Your task to perform on an android device: show emergency info Image 0: 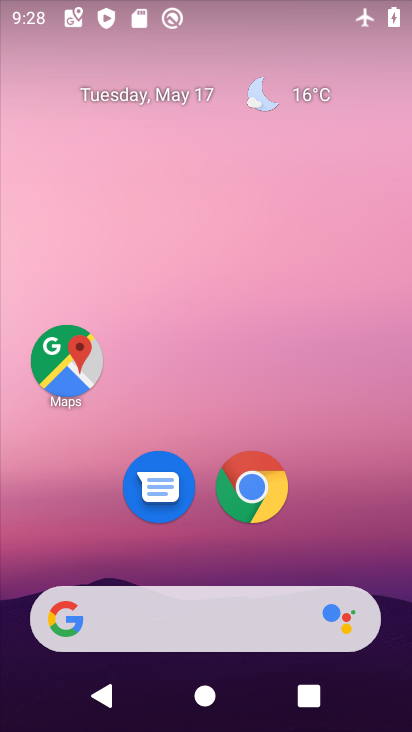
Step 0: drag from (219, 554) to (225, 27)
Your task to perform on an android device: show emergency info Image 1: 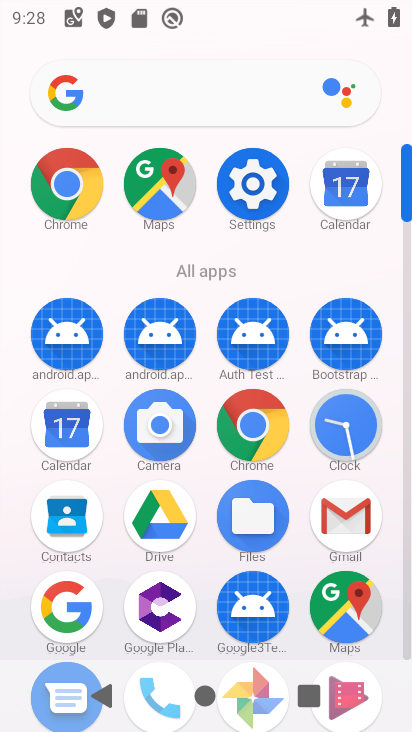
Step 1: click (248, 203)
Your task to perform on an android device: show emergency info Image 2: 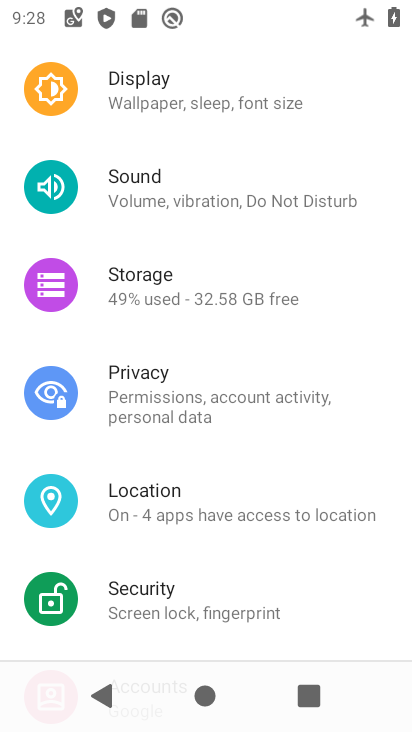
Step 2: drag from (185, 534) to (243, 166)
Your task to perform on an android device: show emergency info Image 3: 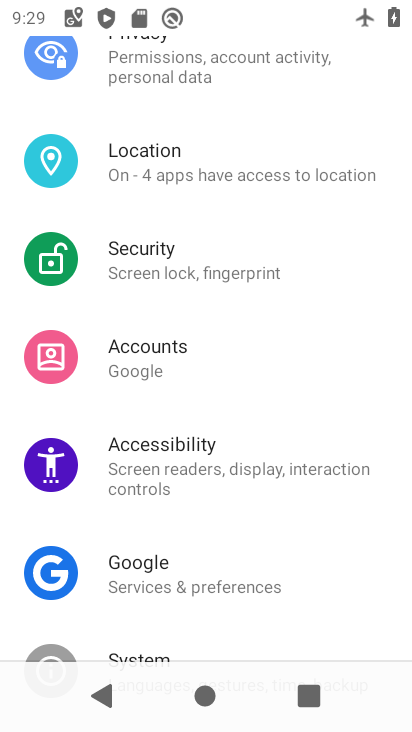
Step 3: drag from (191, 545) to (276, 99)
Your task to perform on an android device: show emergency info Image 4: 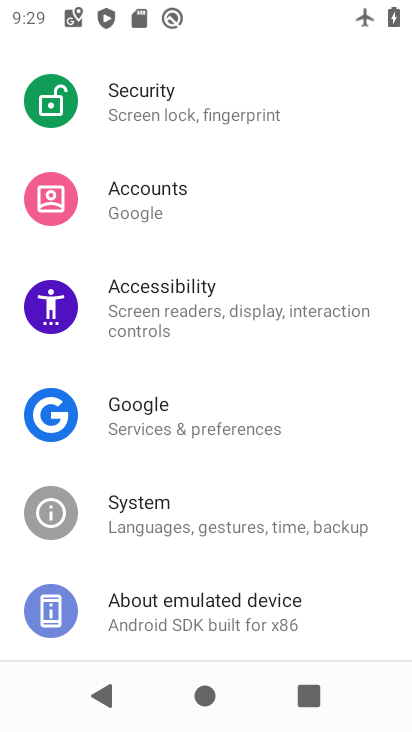
Step 4: click (161, 612)
Your task to perform on an android device: show emergency info Image 5: 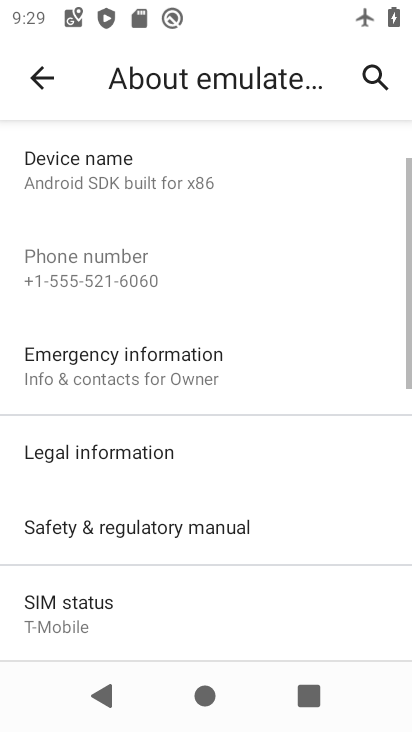
Step 5: click (135, 374)
Your task to perform on an android device: show emergency info Image 6: 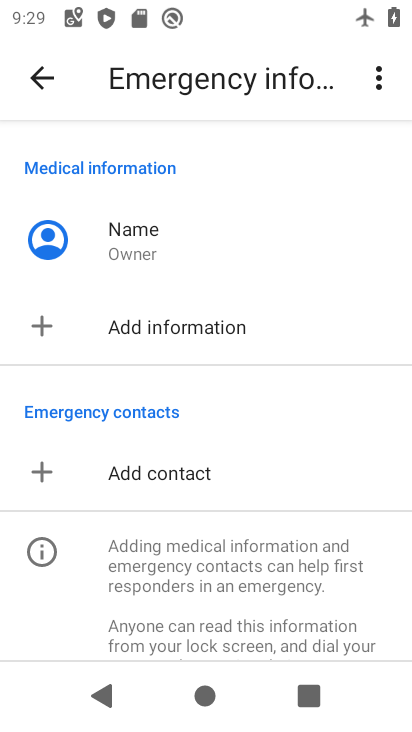
Step 6: task complete